Your task to perform on an android device: Show me some nice wallpapers for my desktop Image 0: 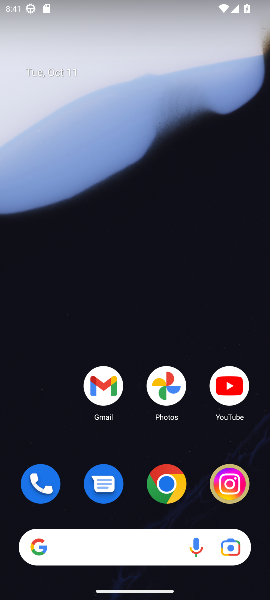
Step 0: drag from (110, 552) to (151, 58)
Your task to perform on an android device: Show me some nice wallpapers for my desktop Image 1: 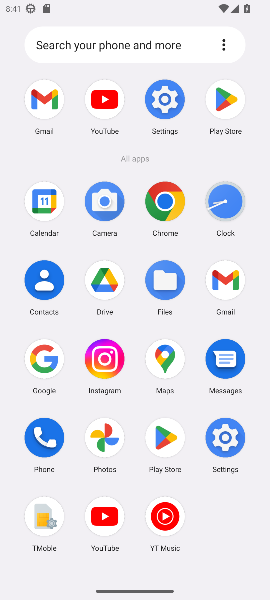
Step 1: click (226, 437)
Your task to perform on an android device: Show me some nice wallpapers for my desktop Image 2: 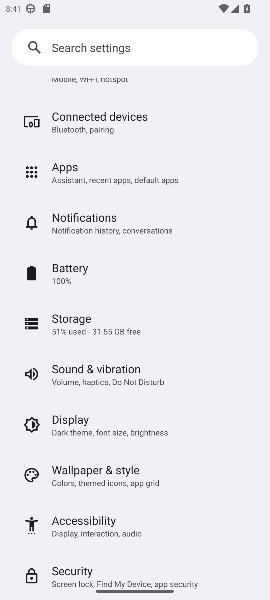
Step 2: click (103, 472)
Your task to perform on an android device: Show me some nice wallpapers for my desktop Image 3: 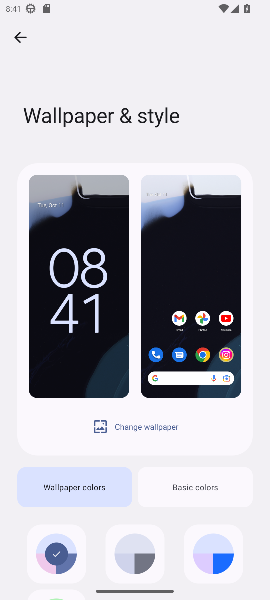
Step 3: click (96, 428)
Your task to perform on an android device: Show me some nice wallpapers for my desktop Image 4: 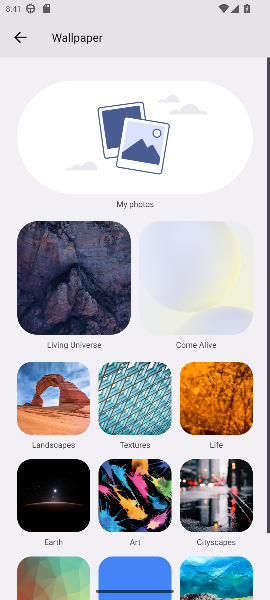
Step 4: task complete